Your task to perform on an android device: change alarm snooze length Image 0: 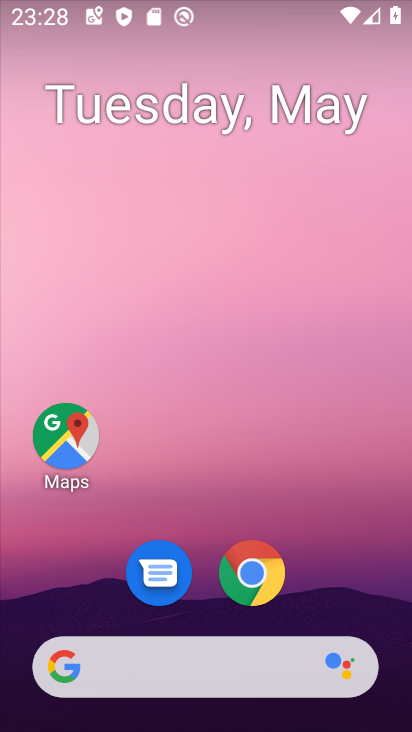
Step 0: drag from (367, 520) to (367, 264)
Your task to perform on an android device: change alarm snooze length Image 1: 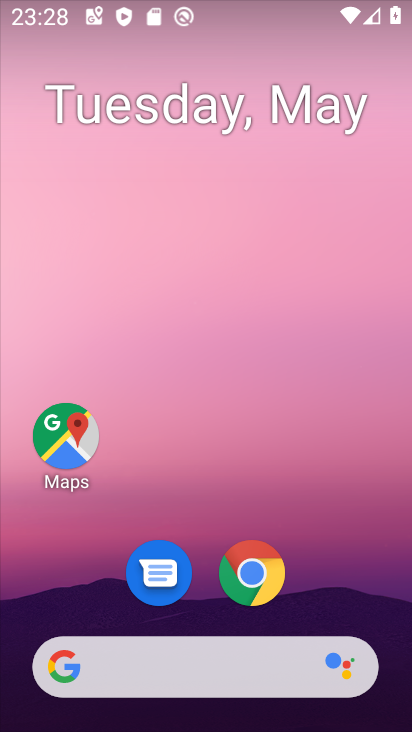
Step 1: drag from (293, 512) to (294, 195)
Your task to perform on an android device: change alarm snooze length Image 2: 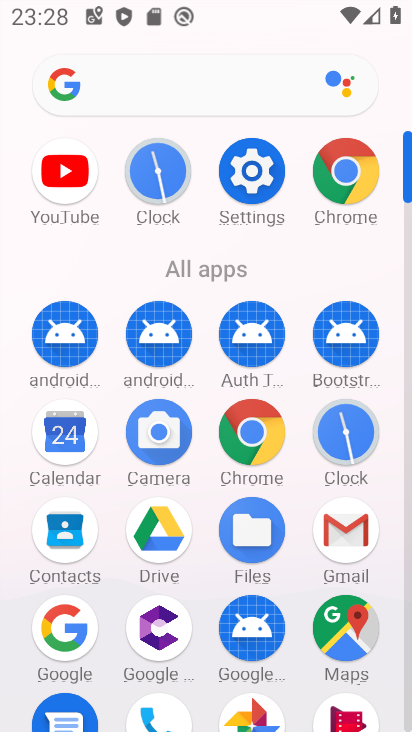
Step 2: click (343, 431)
Your task to perform on an android device: change alarm snooze length Image 3: 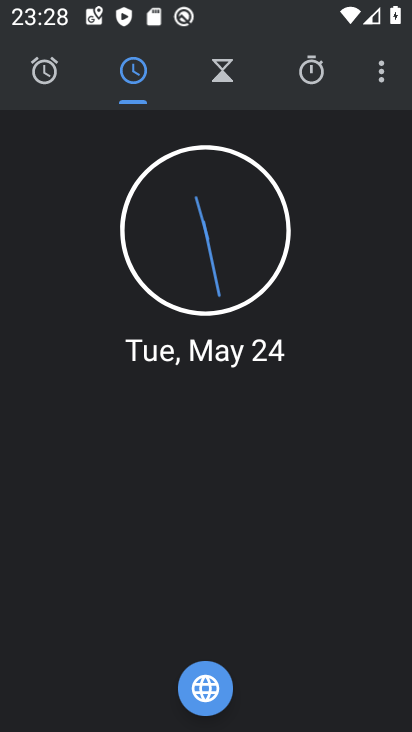
Step 3: click (380, 70)
Your task to perform on an android device: change alarm snooze length Image 4: 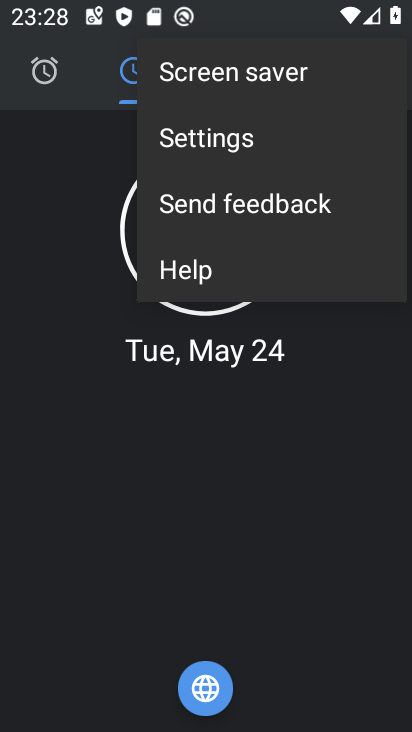
Step 4: click (263, 135)
Your task to perform on an android device: change alarm snooze length Image 5: 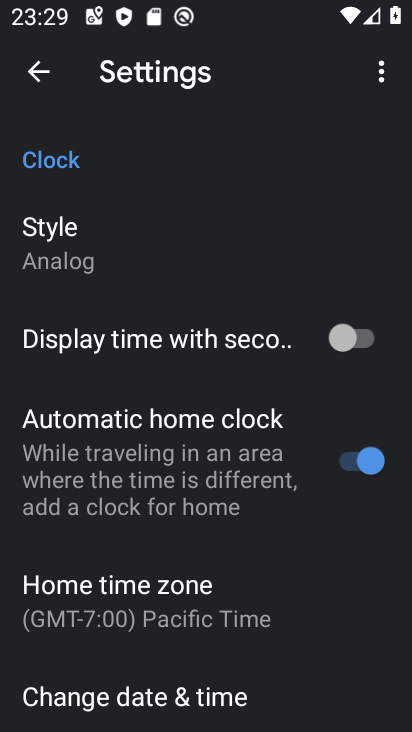
Step 5: drag from (219, 580) to (221, 247)
Your task to perform on an android device: change alarm snooze length Image 6: 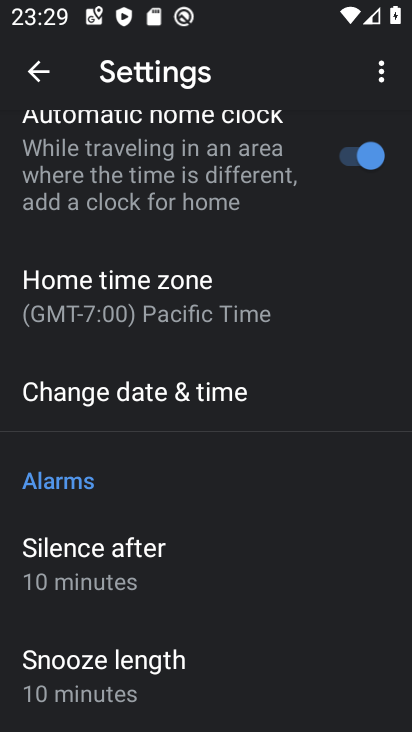
Step 6: drag from (147, 569) to (191, 377)
Your task to perform on an android device: change alarm snooze length Image 7: 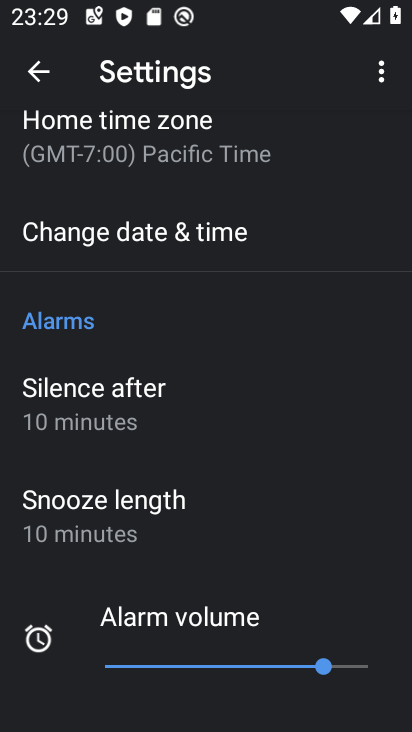
Step 7: click (143, 524)
Your task to perform on an android device: change alarm snooze length Image 8: 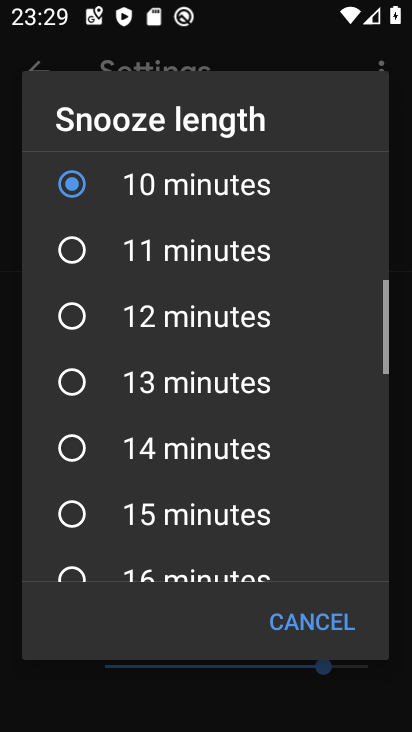
Step 8: click (249, 445)
Your task to perform on an android device: change alarm snooze length Image 9: 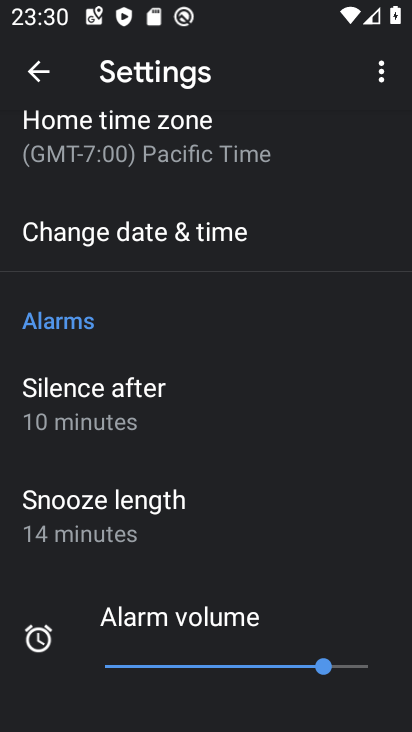
Step 9: task complete